Your task to perform on an android device: uninstall "Move to iOS" Image 0: 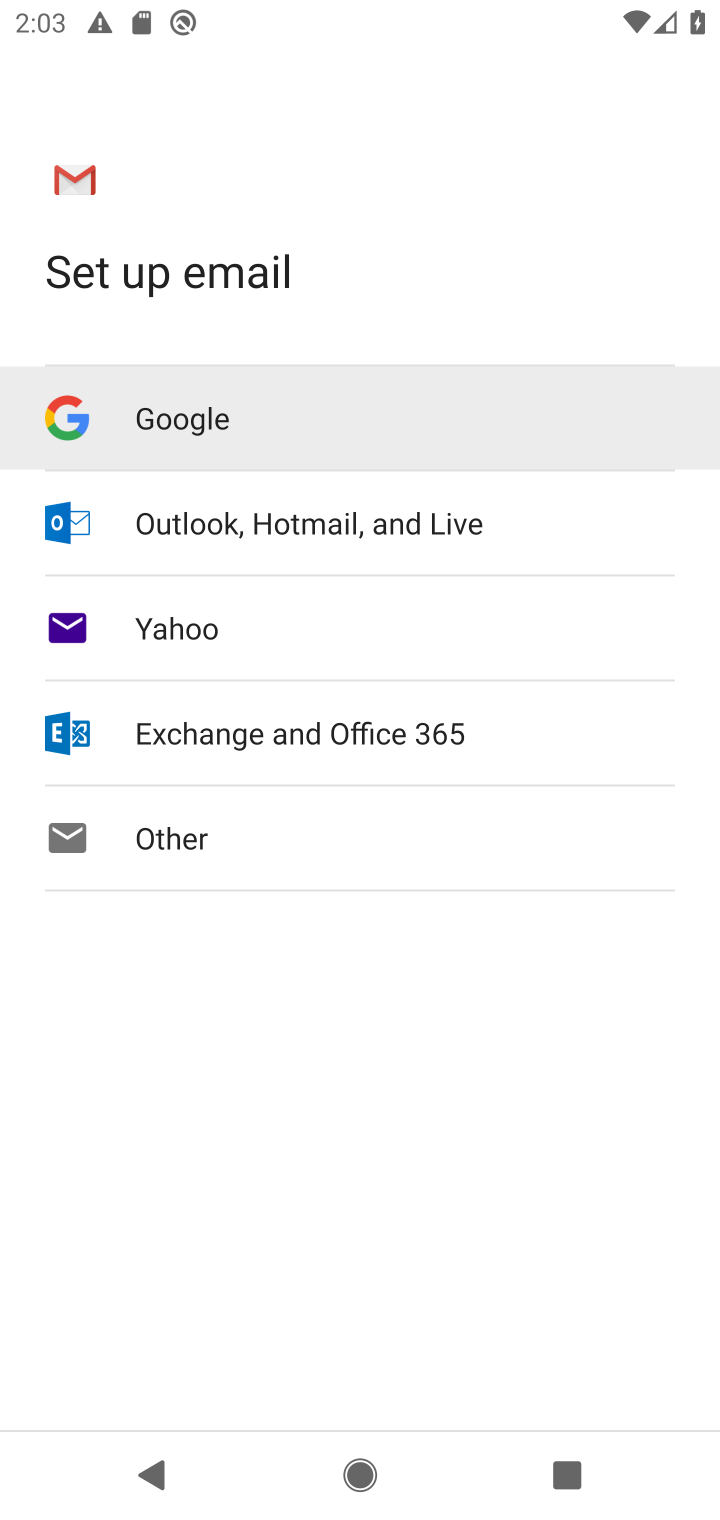
Step 0: press home button
Your task to perform on an android device: uninstall "Move to iOS" Image 1: 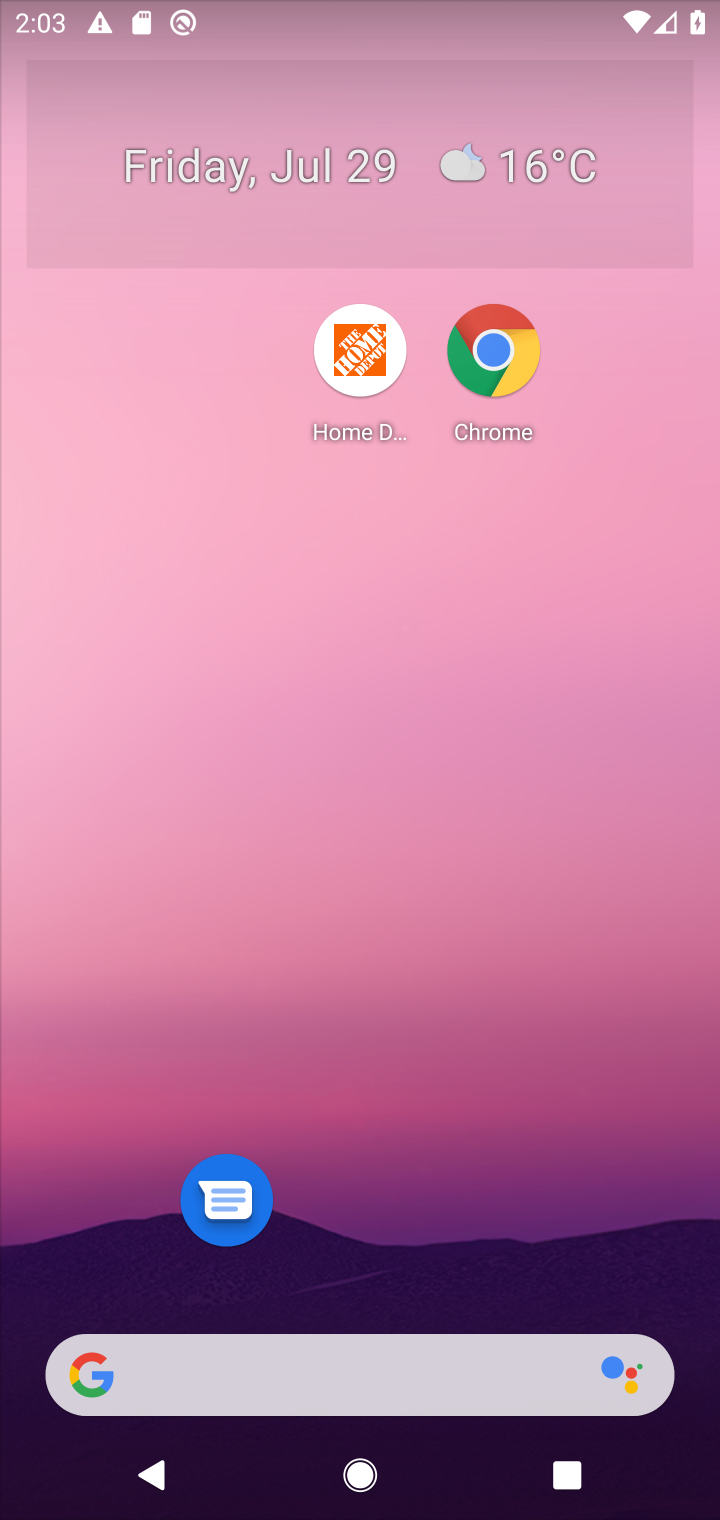
Step 1: drag from (507, 1037) to (471, 360)
Your task to perform on an android device: uninstall "Move to iOS" Image 2: 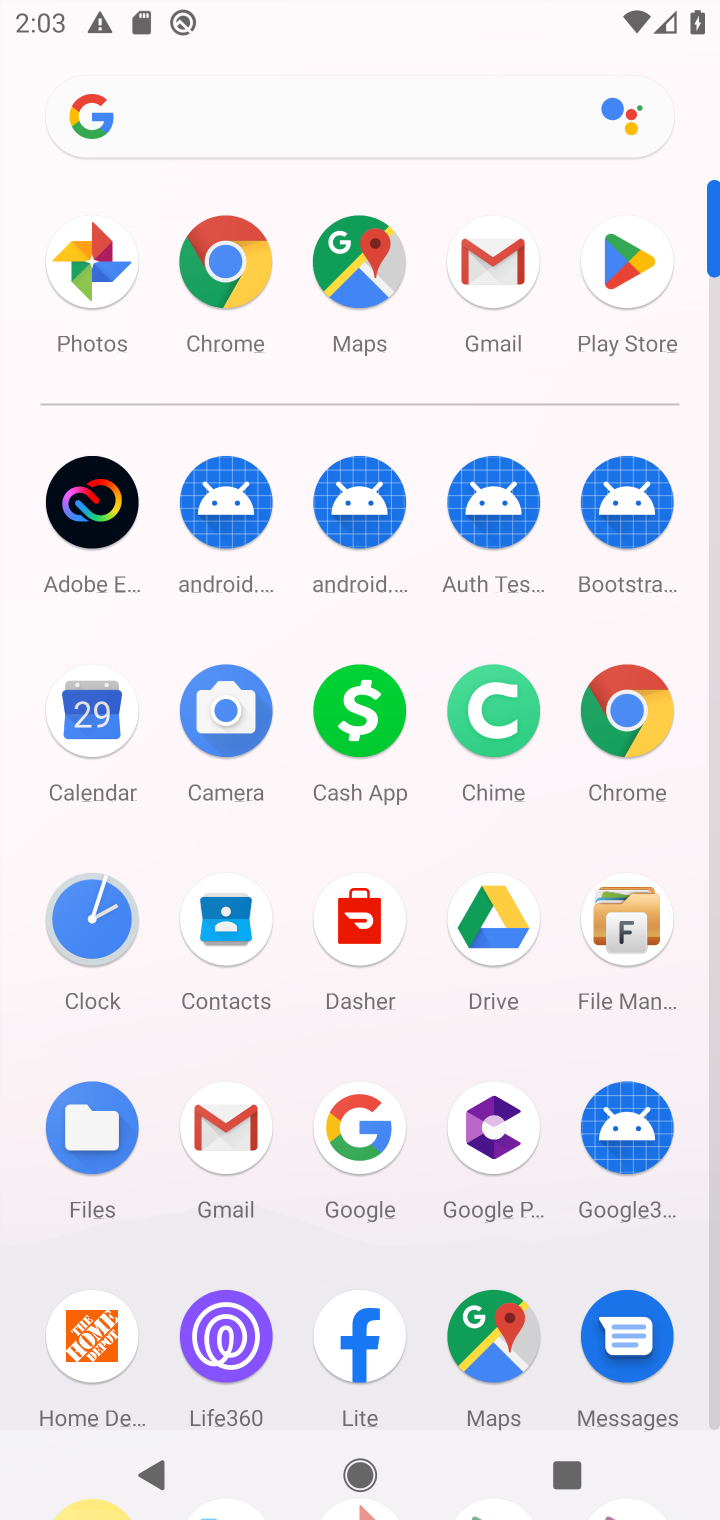
Step 2: click (603, 272)
Your task to perform on an android device: uninstall "Move to iOS" Image 3: 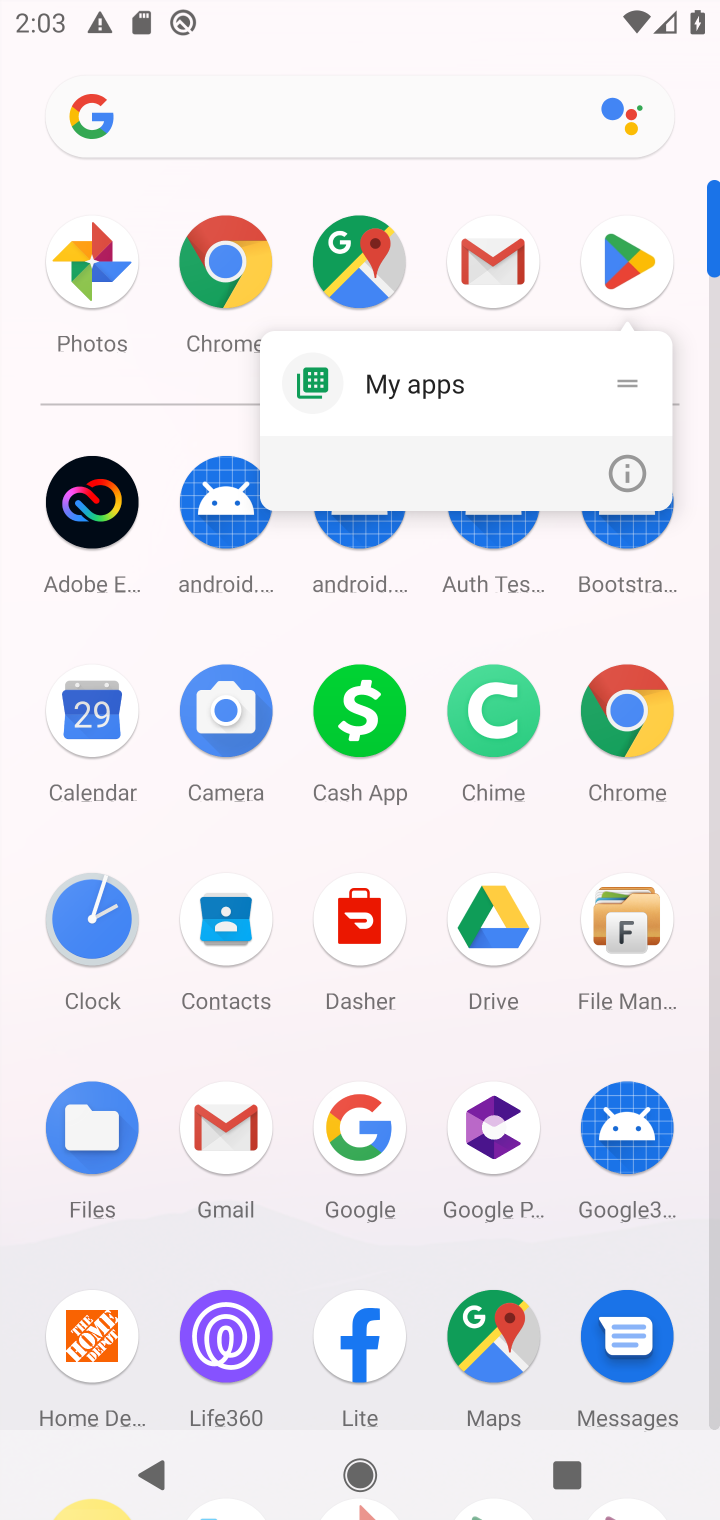
Step 3: click (627, 272)
Your task to perform on an android device: uninstall "Move to iOS" Image 4: 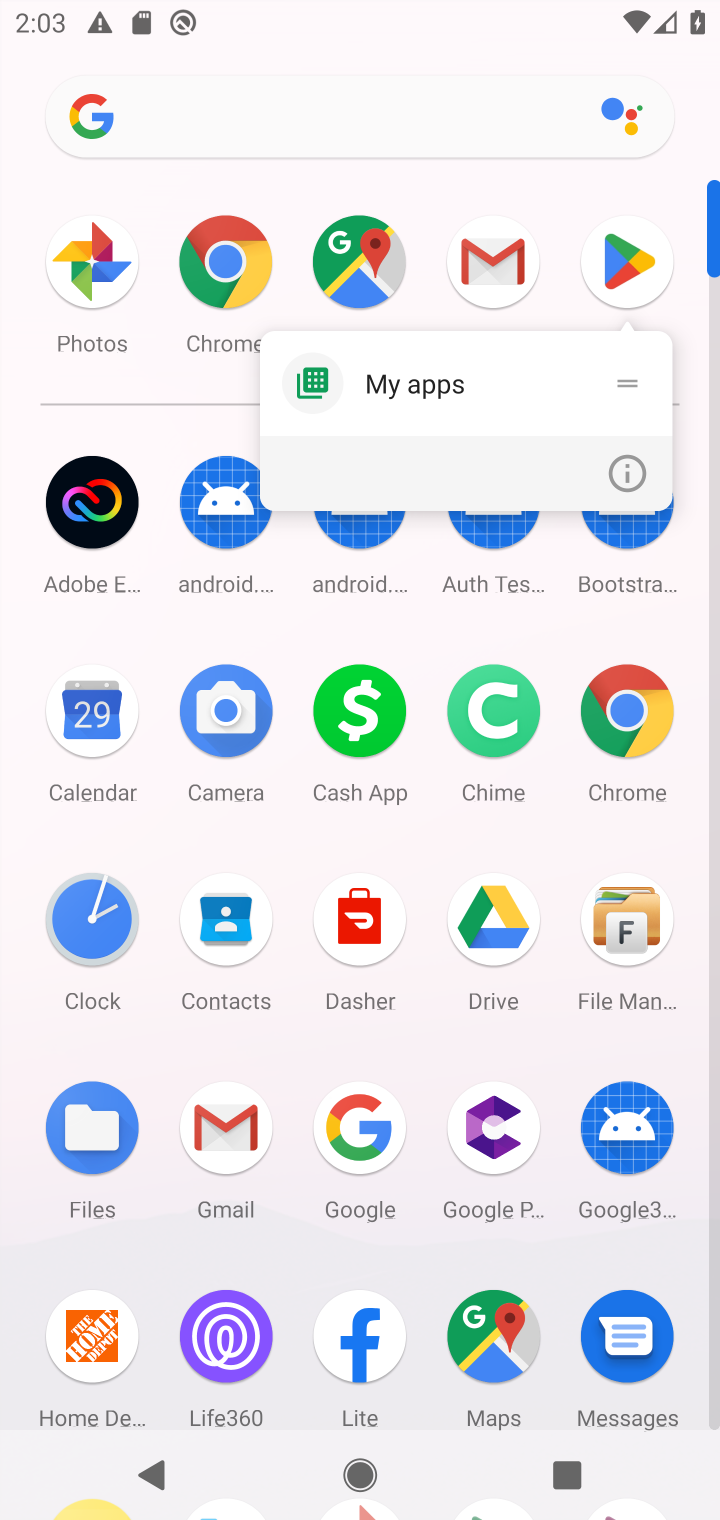
Step 4: click (415, 1042)
Your task to perform on an android device: uninstall "Move to iOS" Image 5: 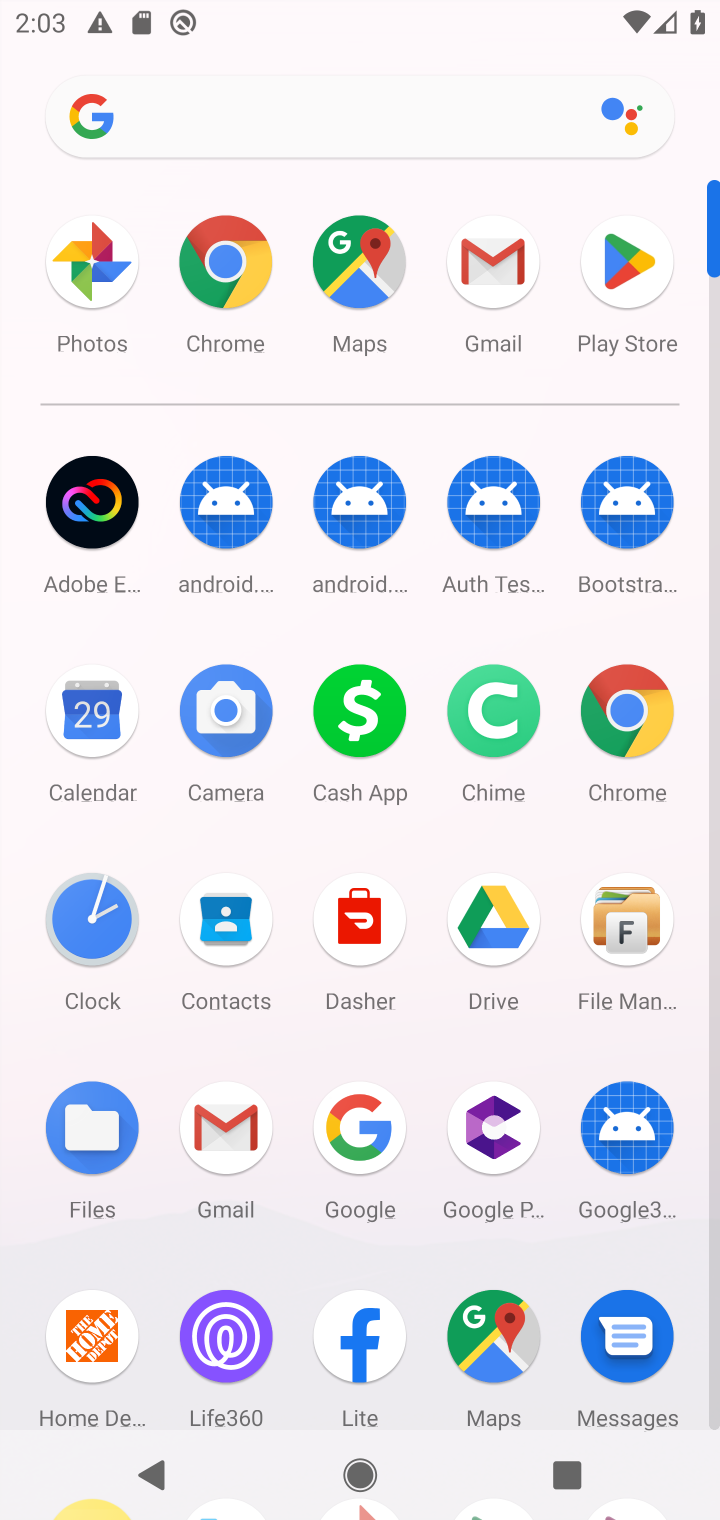
Step 5: drag from (427, 965) to (497, 268)
Your task to perform on an android device: uninstall "Move to iOS" Image 6: 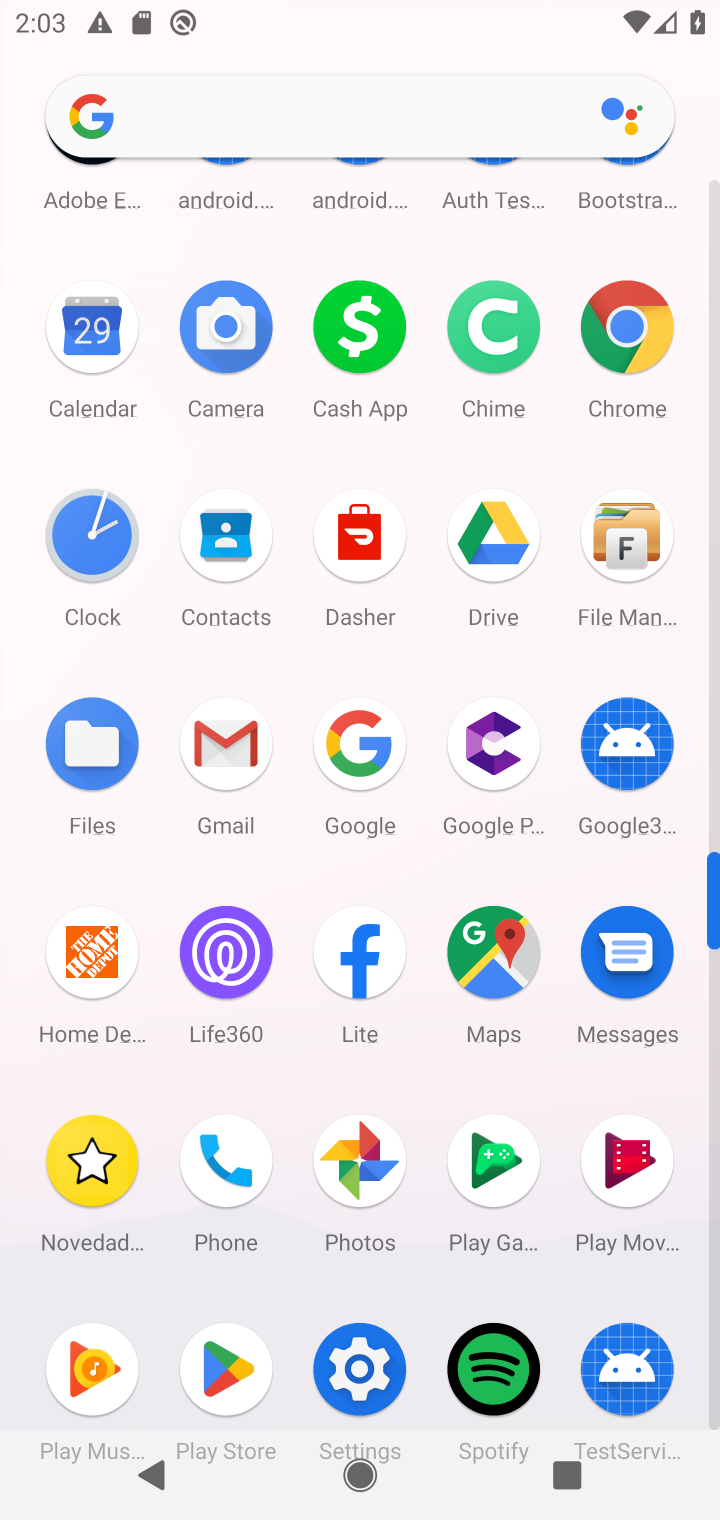
Step 6: click (233, 1366)
Your task to perform on an android device: uninstall "Move to iOS" Image 7: 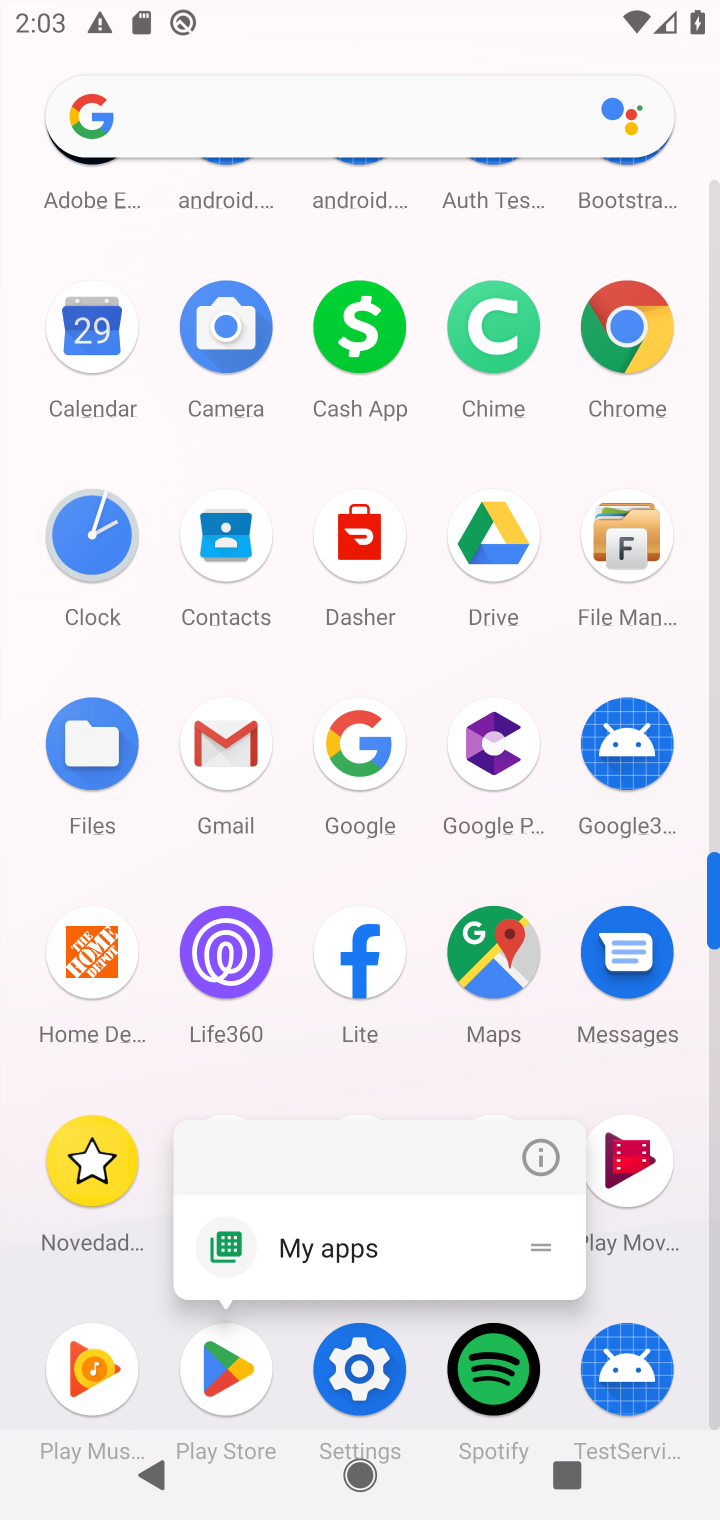
Step 7: click (225, 1363)
Your task to perform on an android device: uninstall "Move to iOS" Image 8: 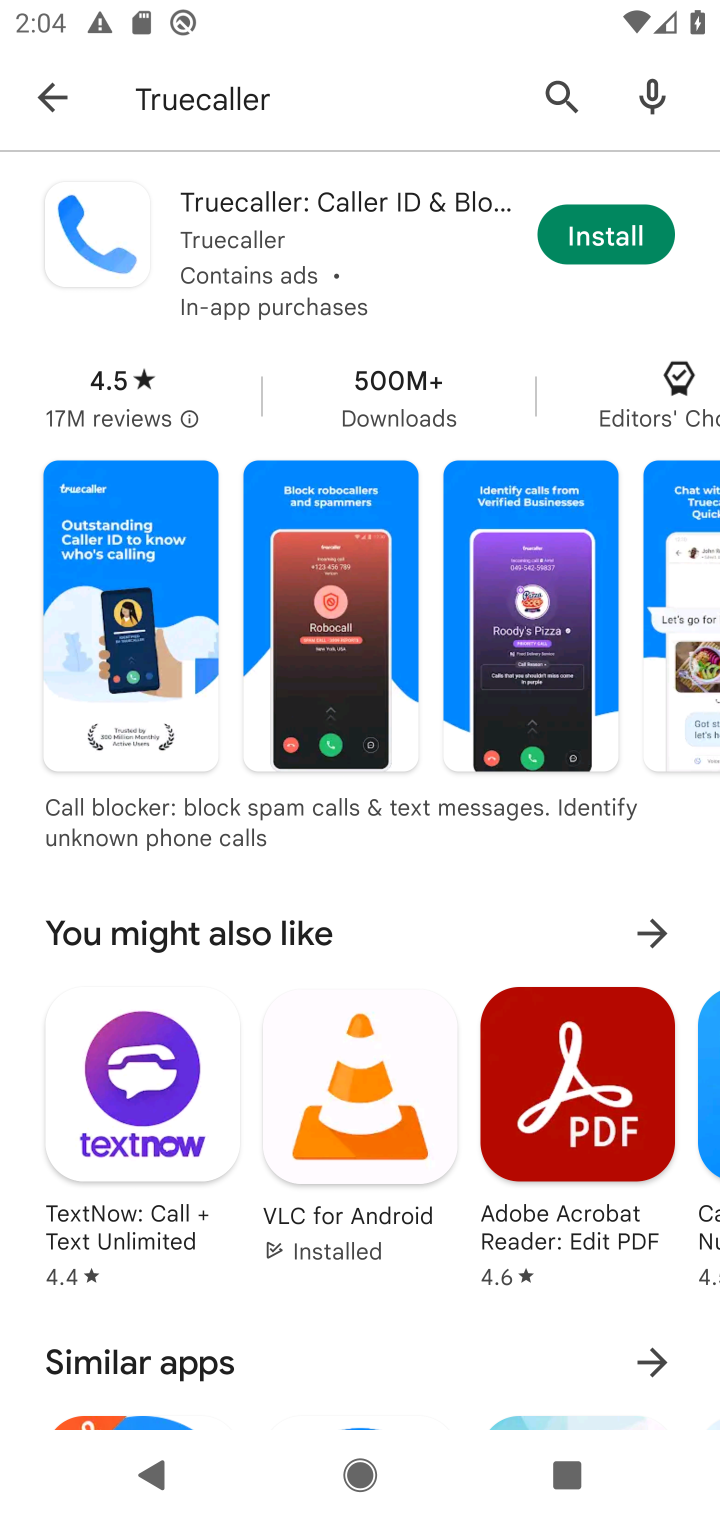
Step 8: click (336, 94)
Your task to perform on an android device: uninstall "Move to iOS" Image 9: 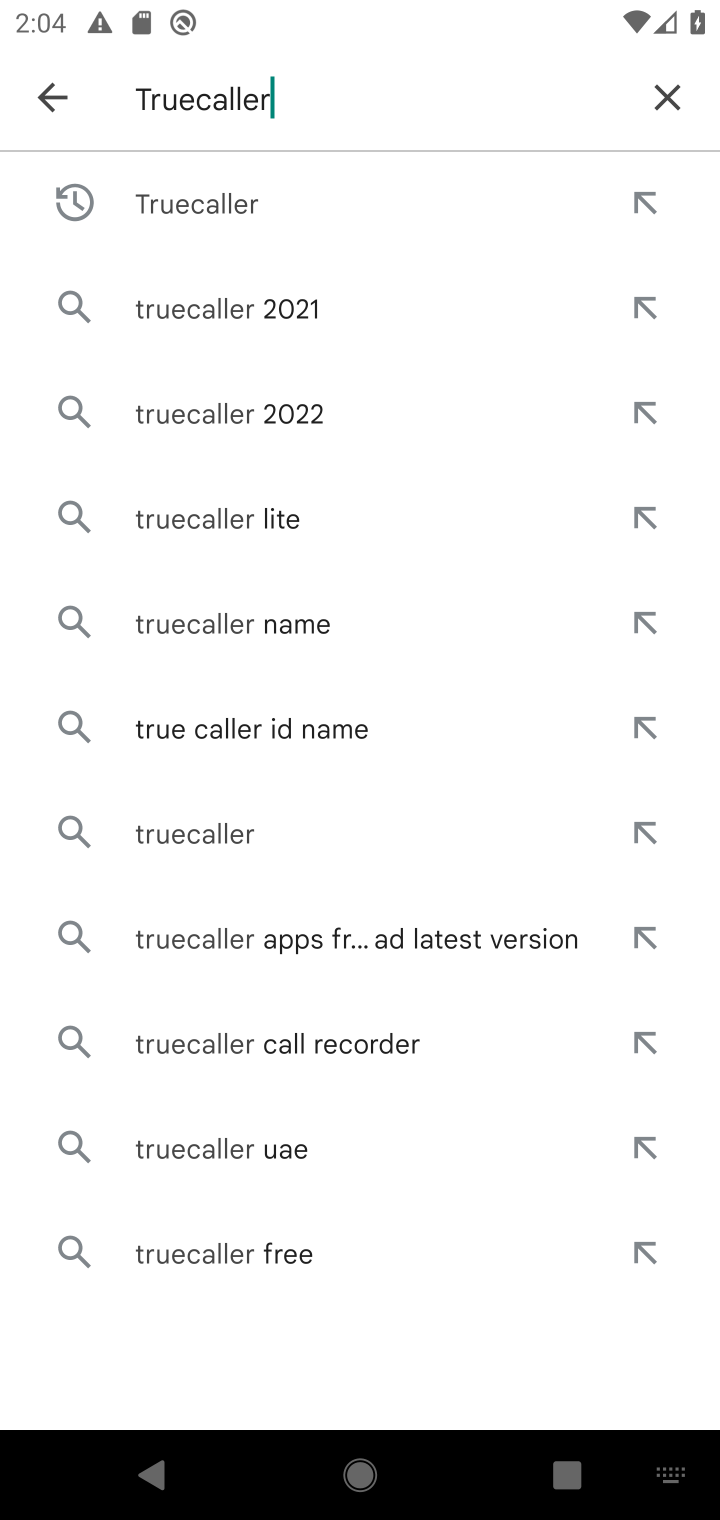
Step 9: click (672, 76)
Your task to perform on an android device: uninstall "Move to iOS" Image 10: 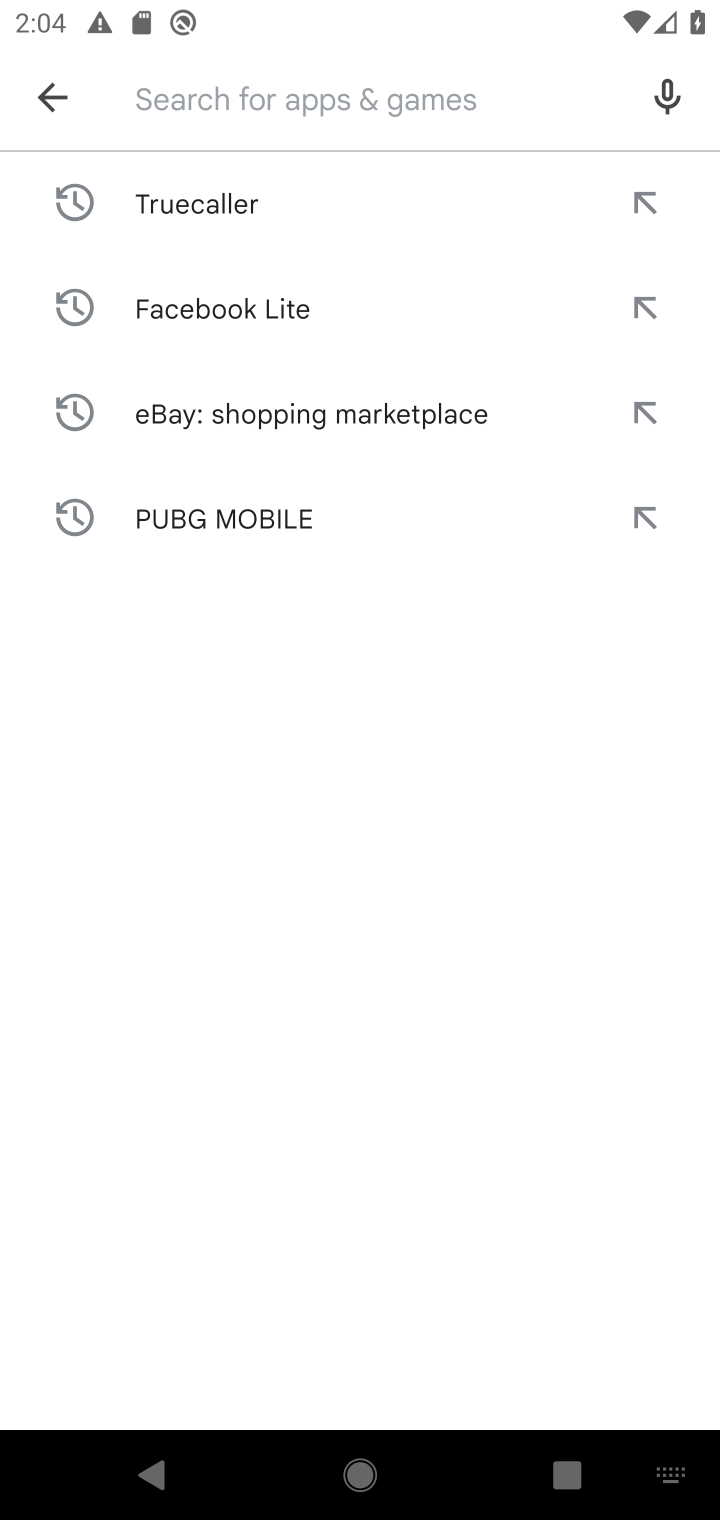
Step 10: type "Move to iOS"
Your task to perform on an android device: uninstall "Move to iOS" Image 11: 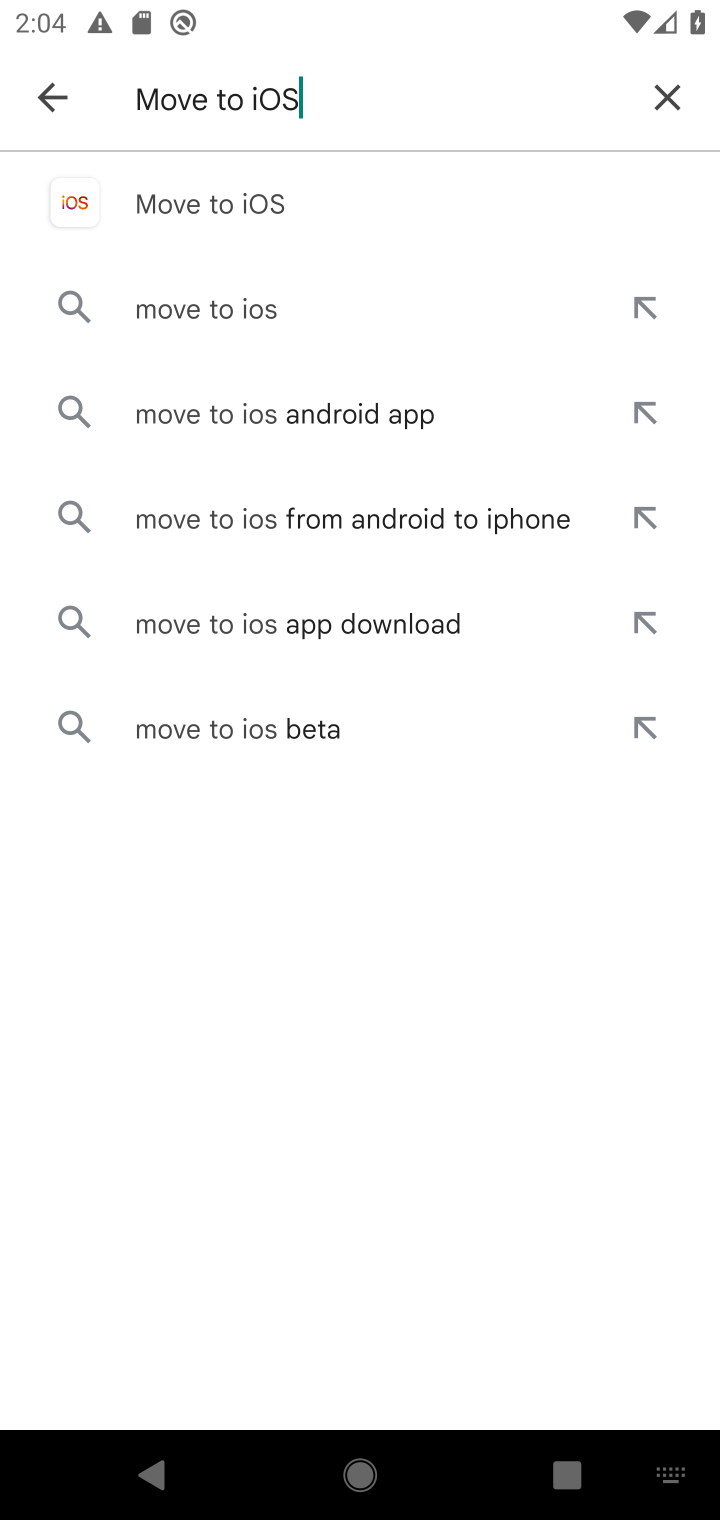
Step 11: press enter
Your task to perform on an android device: uninstall "Move to iOS" Image 12: 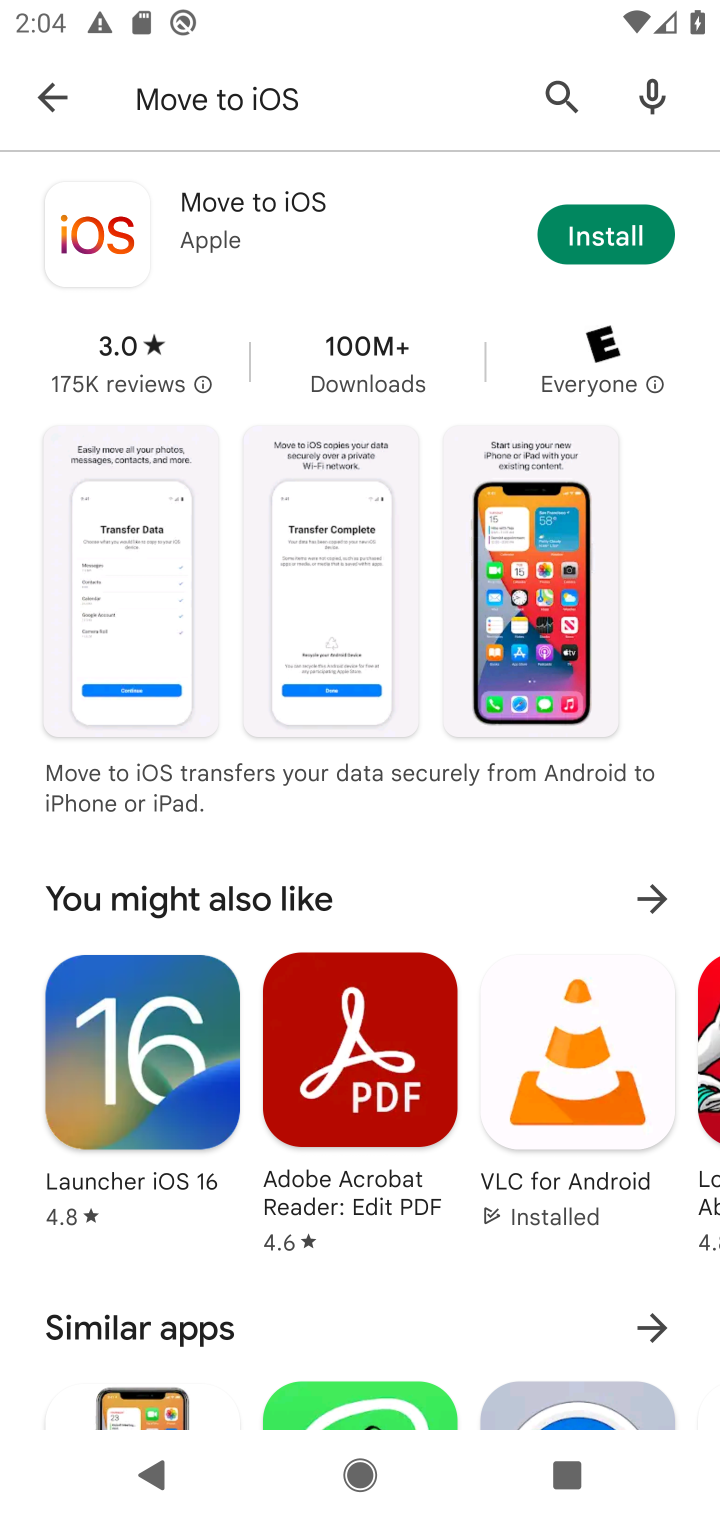
Step 12: task complete